Your task to perform on an android device: Go to eBay Image 0: 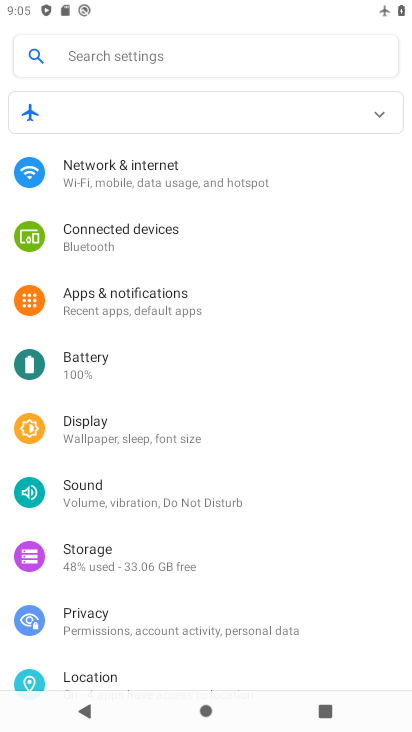
Step 0: press home button
Your task to perform on an android device: Go to eBay Image 1: 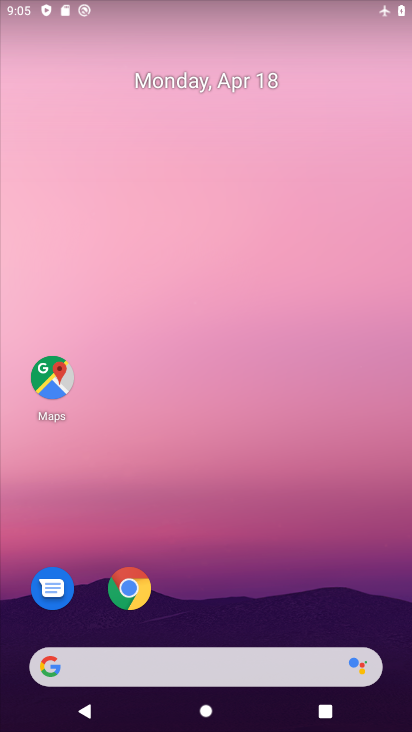
Step 1: drag from (233, 575) to (297, 101)
Your task to perform on an android device: Go to eBay Image 2: 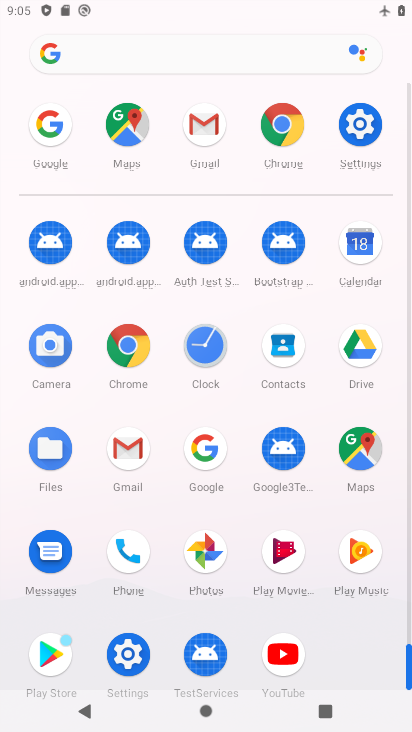
Step 2: click (113, 343)
Your task to perform on an android device: Go to eBay Image 3: 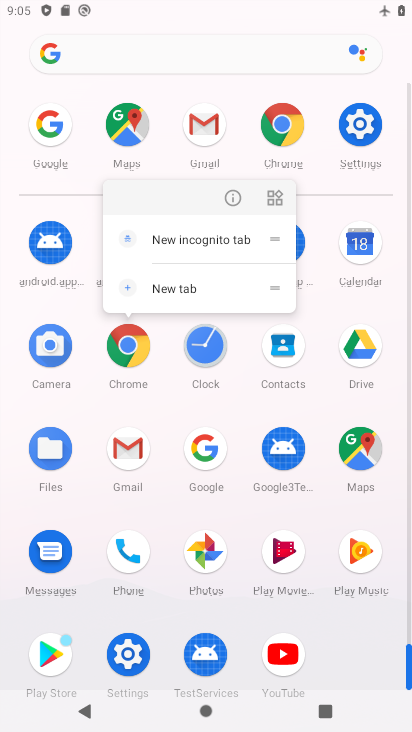
Step 3: click (113, 343)
Your task to perform on an android device: Go to eBay Image 4: 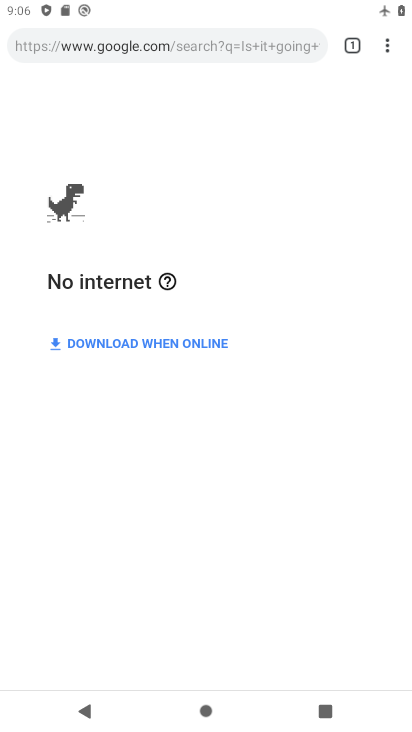
Step 4: task complete